Your task to perform on an android device: change your default location settings in chrome Image 0: 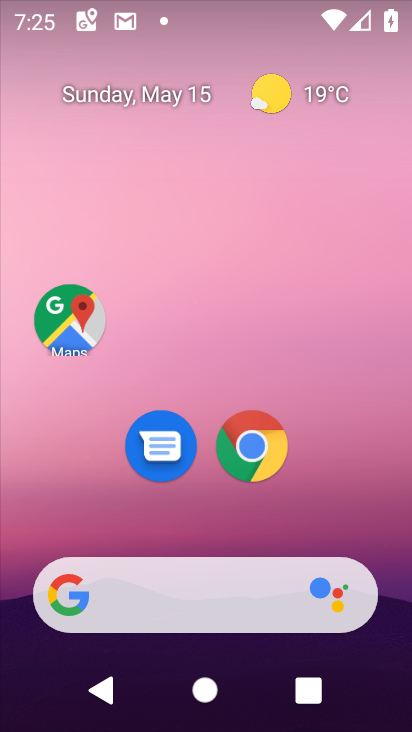
Step 0: drag from (210, 659) to (219, 95)
Your task to perform on an android device: change your default location settings in chrome Image 1: 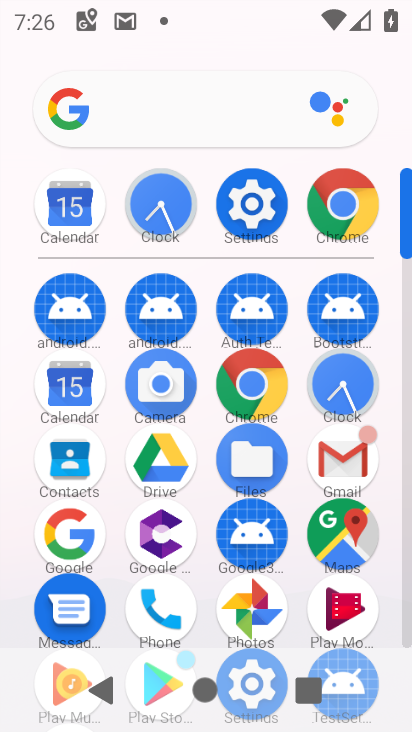
Step 1: click (236, 375)
Your task to perform on an android device: change your default location settings in chrome Image 2: 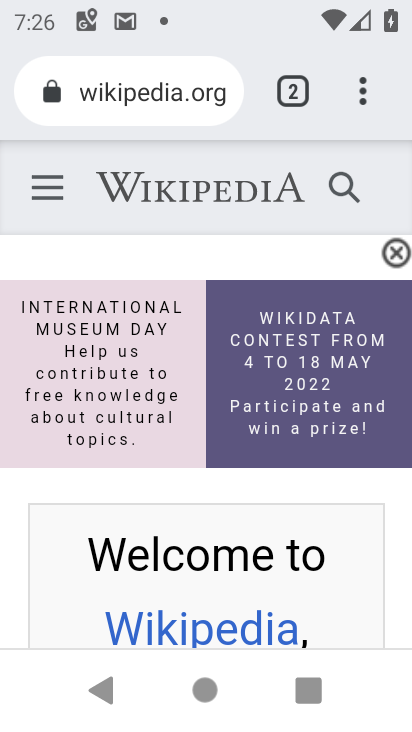
Step 2: click (374, 84)
Your task to perform on an android device: change your default location settings in chrome Image 3: 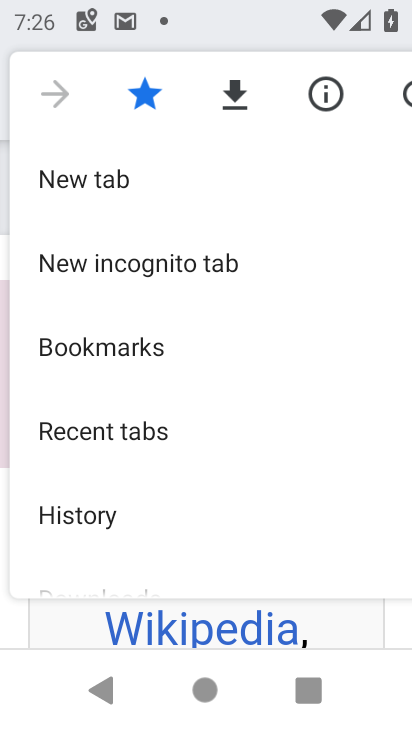
Step 3: drag from (134, 501) to (142, 291)
Your task to perform on an android device: change your default location settings in chrome Image 4: 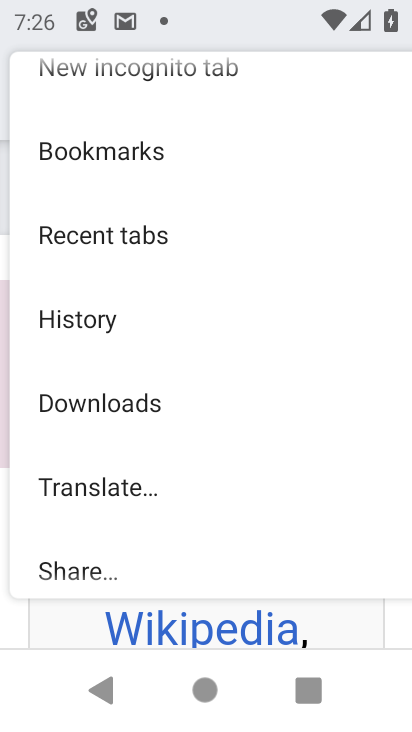
Step 4: drag from (143, 508) to (163, 226)
Your task to perform on an android device: change your default location settings in chrome Image 5: 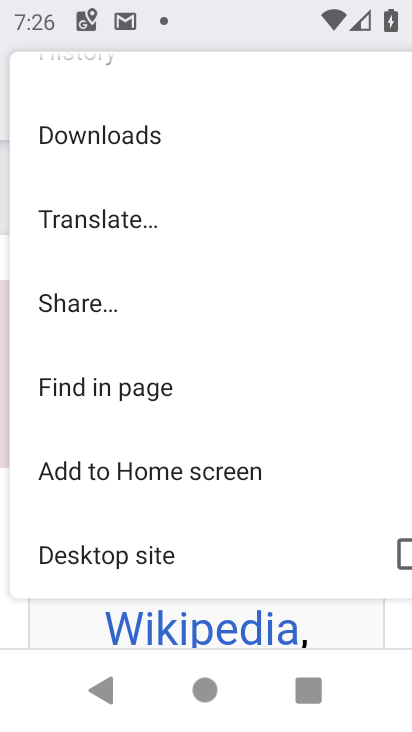
Step 5: drag from (143, 508) to (149, 328)
Your task to perform on an android device: change your default location settings in chrome Image 6: 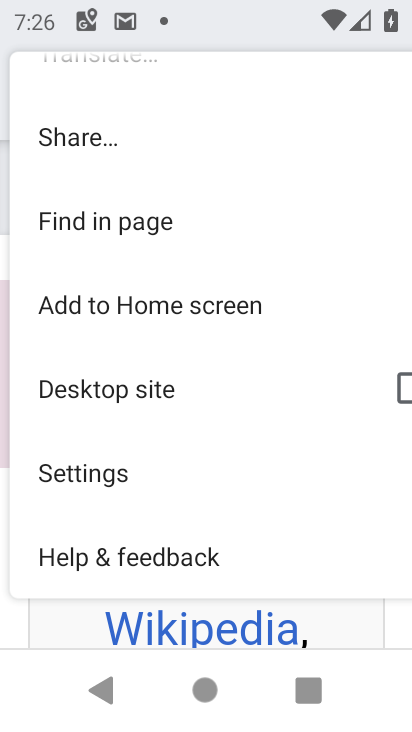
Step 6: click (152, 470)
Your task to perform on an android device: change your default location settings in chrome Image 7: 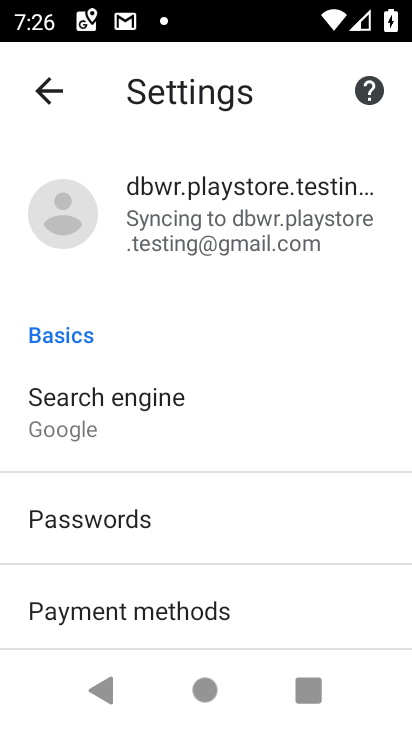
Step 7: drag from (247, 571) to (290, 367)
Your task to perform on an android device: change your default location settings in chrome Image 8: 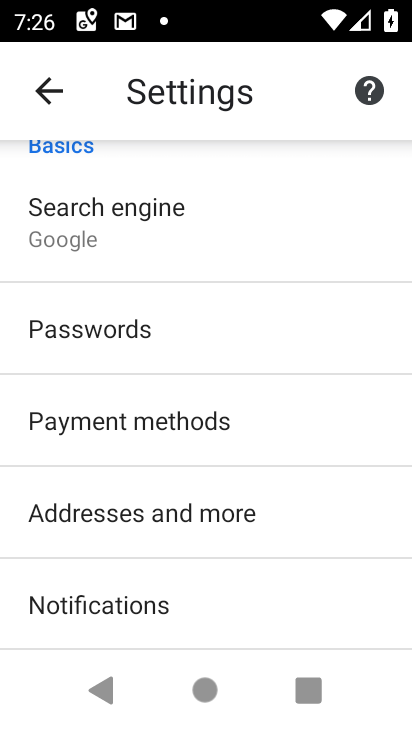
Step 8: drag from (231, 515) to (270, 340)
Your task to perform on an android device: change your default location settings in chrome Image 9: 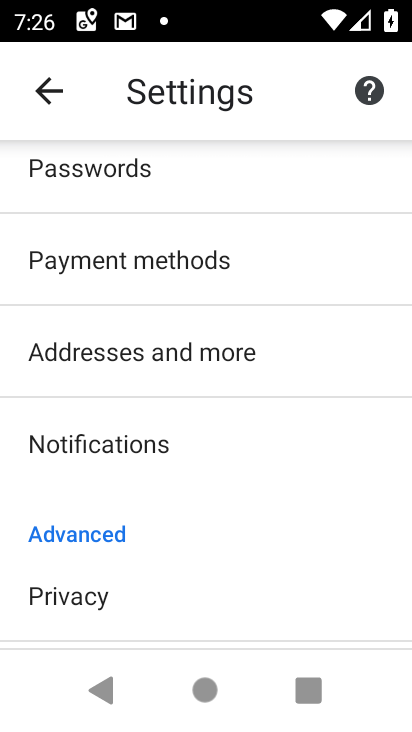
Step 9: drag from (252, 496) to (254, 323)
Your task to perform on an android device: change your default location settings in chrome Image 10: 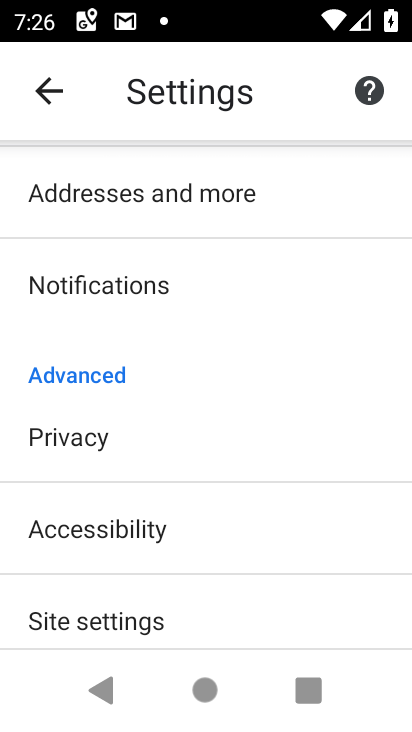
Step 10: click (104, 621)
Your task to perform on an android device: change your default location settings in chrome Image 11: 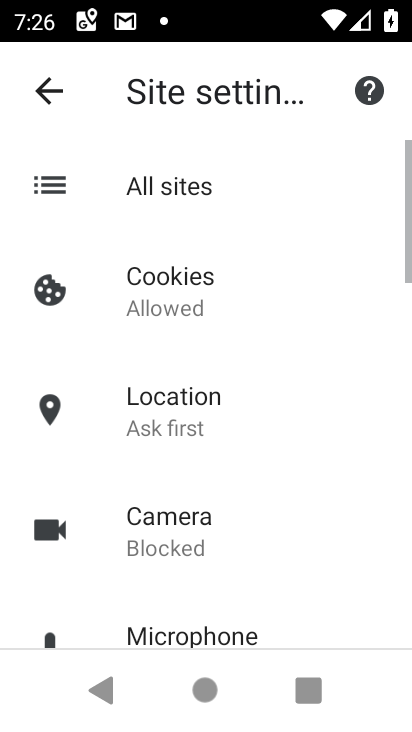
Step 11: click (151, 457)
Your task to perform on an android device: change your default location settings in chrome Image 12: 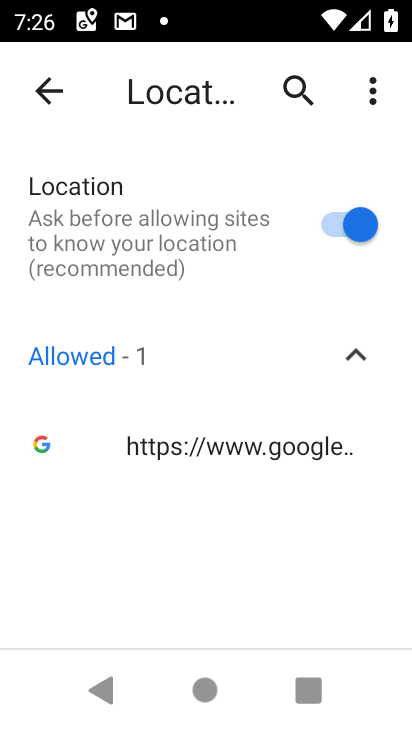
Step 12: click (299, 228)
Your task to perform on an android device: change your default location settings in chrome Image 13: 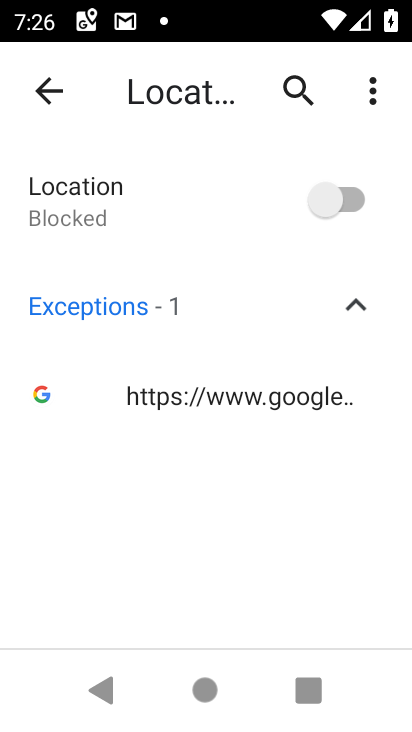
Step 13: click (300, 228)
Your task to perform on an android device: change your default location settings in chrome Image 14: 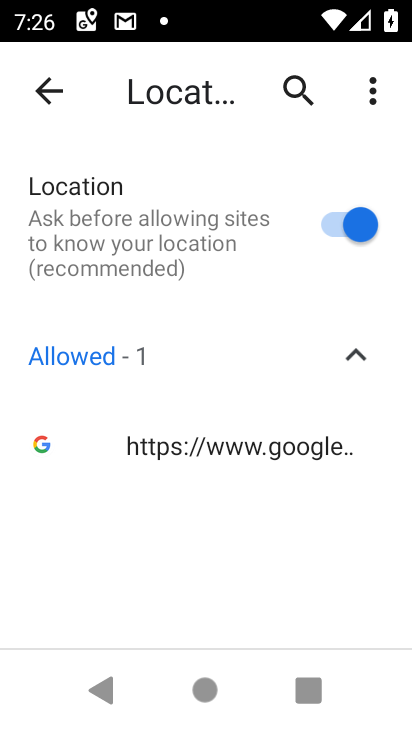
Step 14: task complete